Your task to perform on an android device: toggle data saver in the chrome app Image 0: 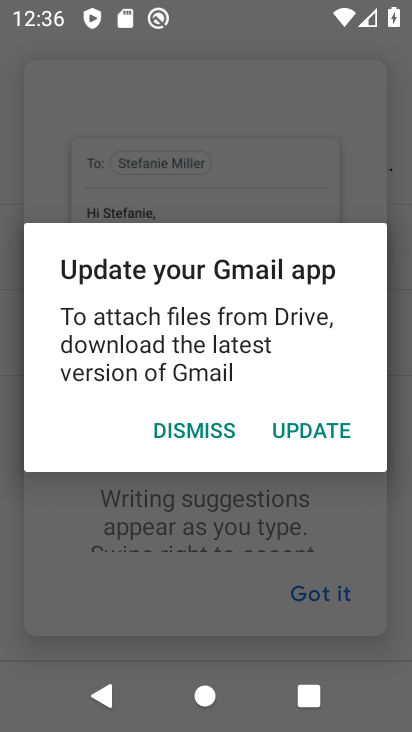
Step 0: press home button
Your task to perform on an android device: toggle data saver in the chrome app Image 1: 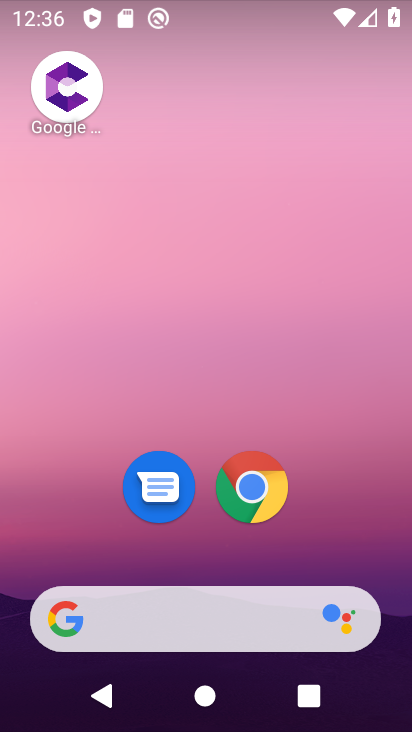
Step 1: drag from (335, 428) to (337, 24)
Your task to perform on an android device: toggle data saver in the chrome app Image 2: 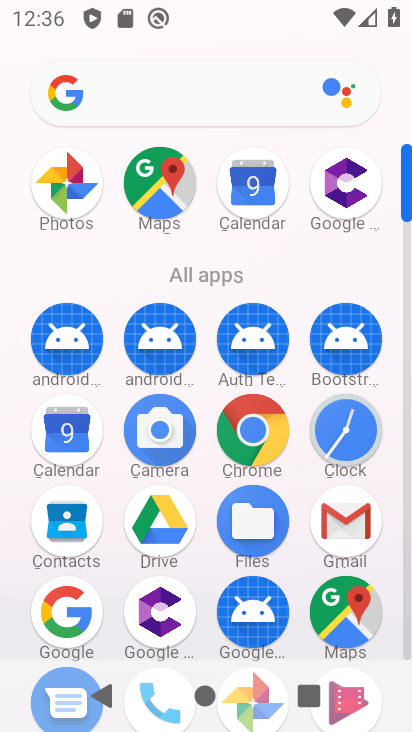
Step 2: click (249, 426)
Your task to perform on an android device: toggle data saver in the chrome app Image 3: 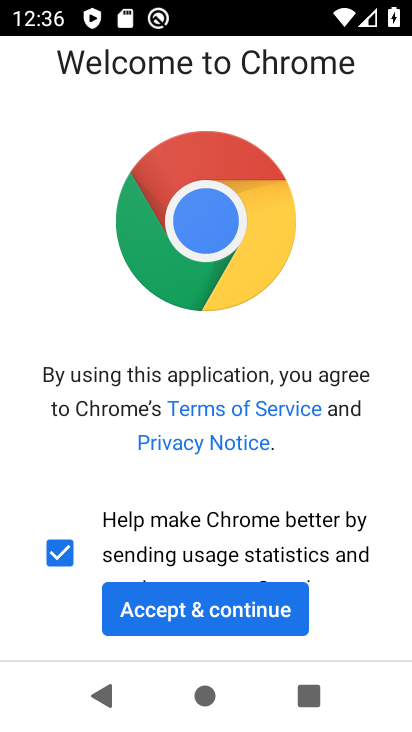
Step 3: click (289, 609)
Your task to perform on an android device: toggle data saver in the chrome app Image 4: 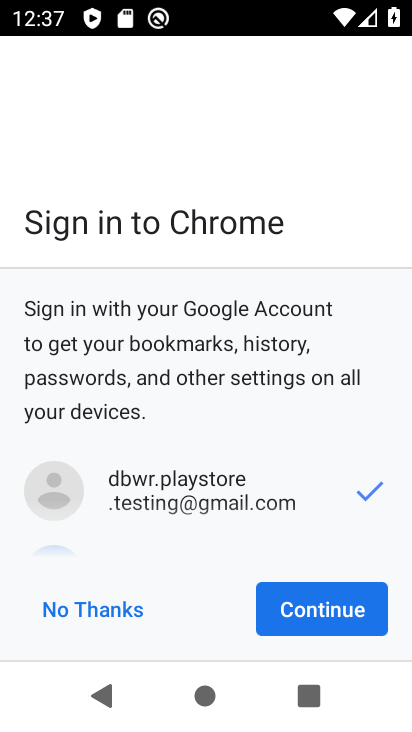
Step 4: click (311, 600)
Your task to perform on an android device: toggle data saver in the chrome app Image 5: 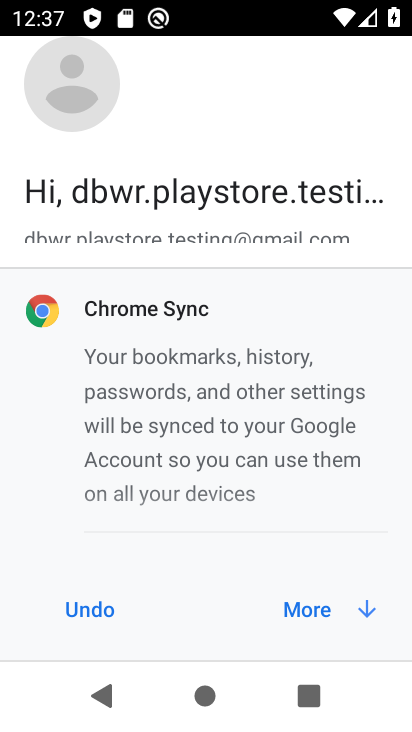
Step 5: click (311, 600)
Your task to perform on an android device: toggle data saver in the chrome app Image 6: 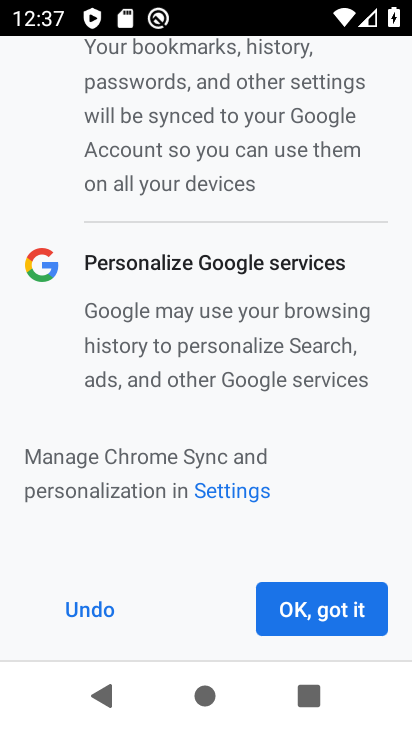
Step 6: click (311, 600)
Your task to perform on an android device: toggle data saver in the chrome app Image 7: 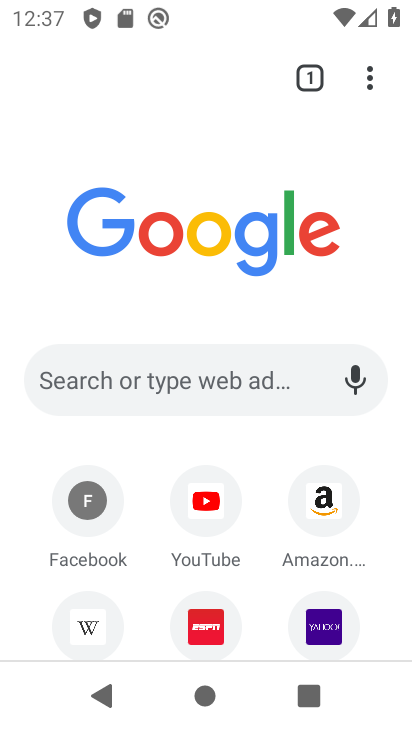
Step 7: click (365, 87)
Your task to perform on an android device: toggle data saver in the chrome app Image 8: 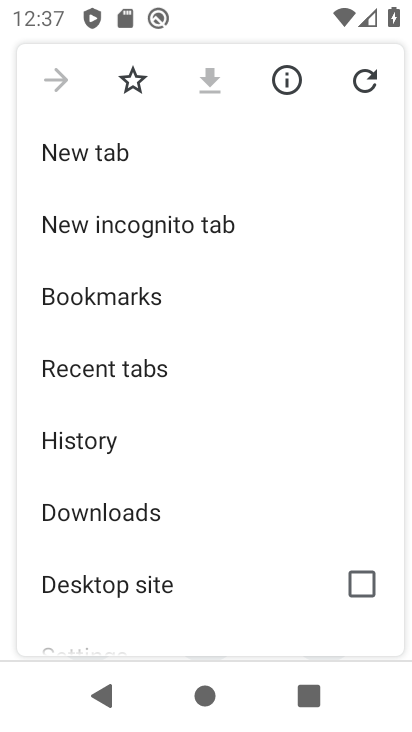
Step 8: drag from (250, 568) to (226, 125)
Your task to perform on an android device: toggle data saver in the chrome app Image 9: 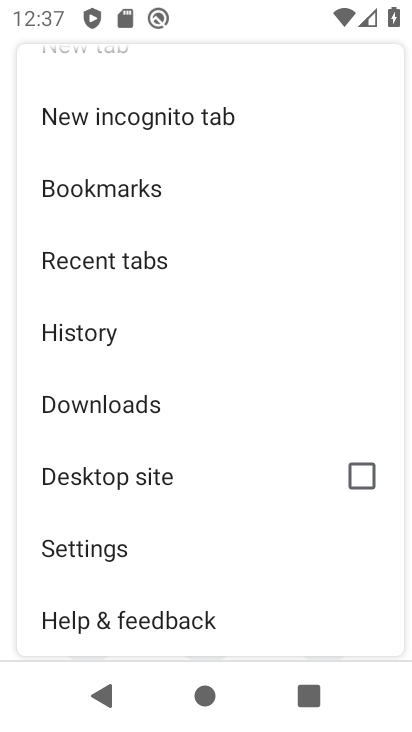
Step 9: click (131, 550)
Your task to perform on an android device: toggle data saver in the chrome app Image 10: 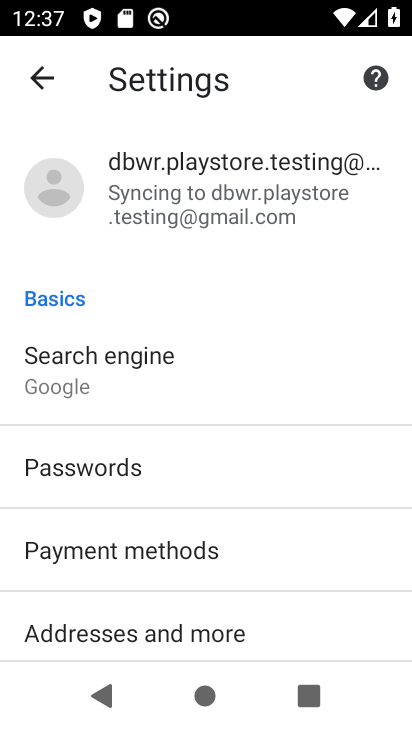
Step 10: drag from (195, 601) to (219, 140)
Your task to perform on an android device: toggle data saver in the chrome app Image 11: 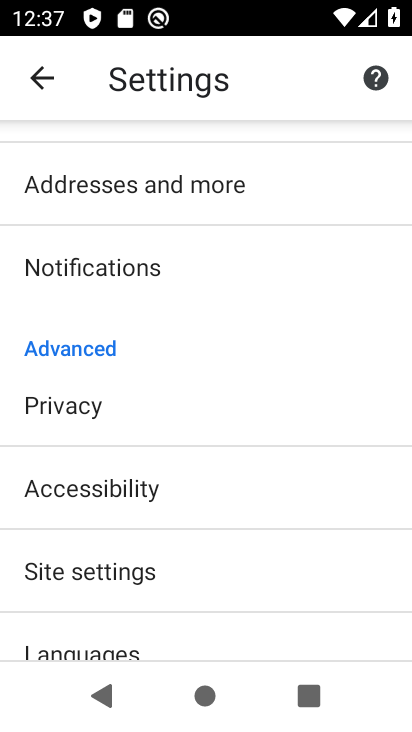
Step 11: drag from (205, 583) to (211, 220)
Your task to perform on an android device: toggle data saver in the chrome app Image 12: 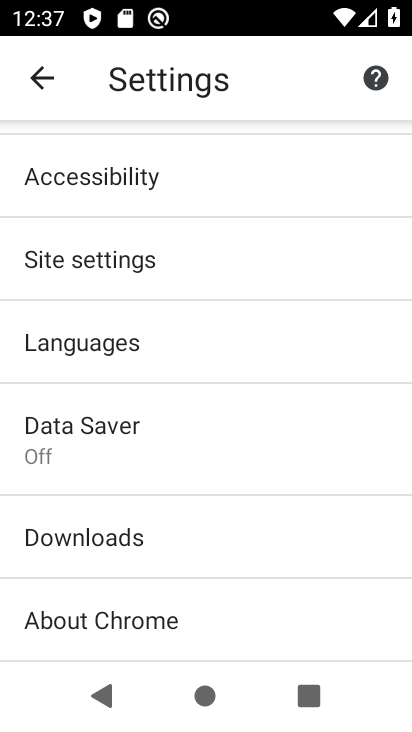
Step 12: click (160, 433)
Your task to perform on an android device: toggle data saver in the chrome app Image 13: 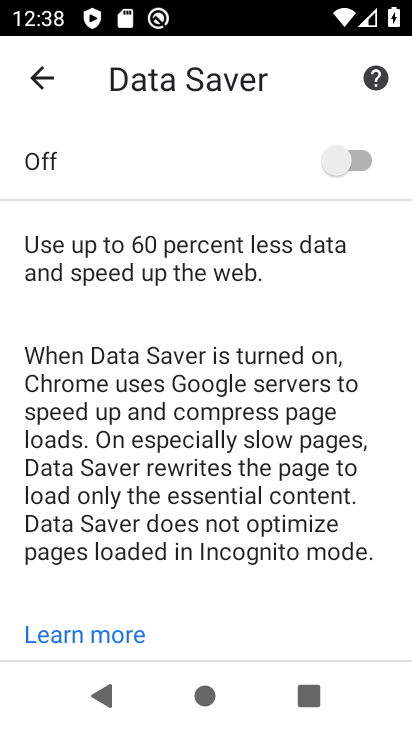
Step 13: click (348, 150)
Your task to perform on an android device: toggle data saver in the chrome app Image 14: 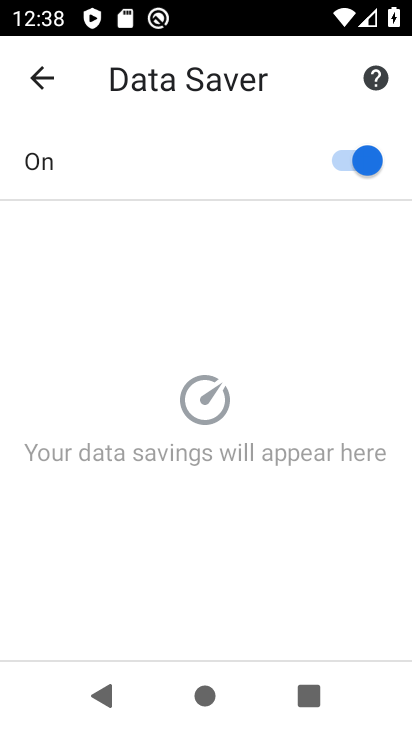
Step 14: task complete